Your task to perform on an android device: Show me popular games on the Play Store Image 0: 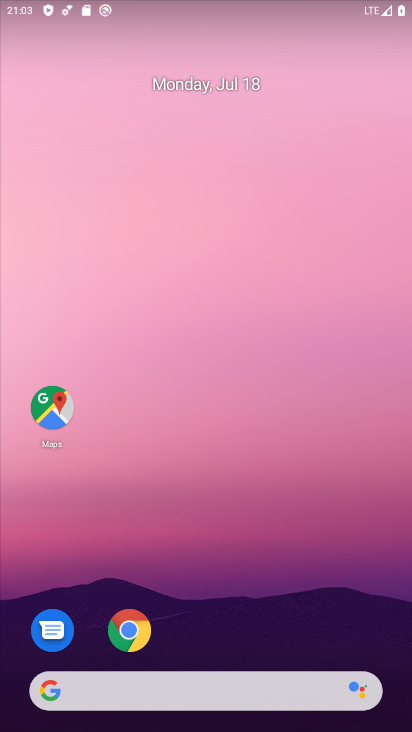
Step 0: drag from (274, 614) to (34, 435)
Your task to perform on an android device: Show me popular games on the Play Store Image 1: 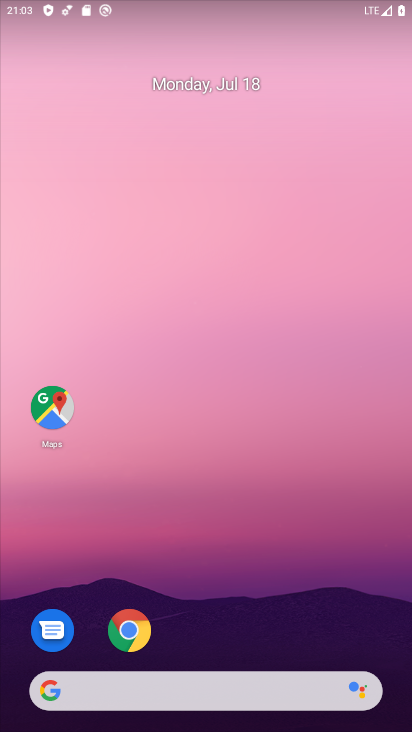
Step 1: drag from (267, 671) to (2, 357)
Your task to perform on an android device: Show me popular games on the Play Store Image 2: 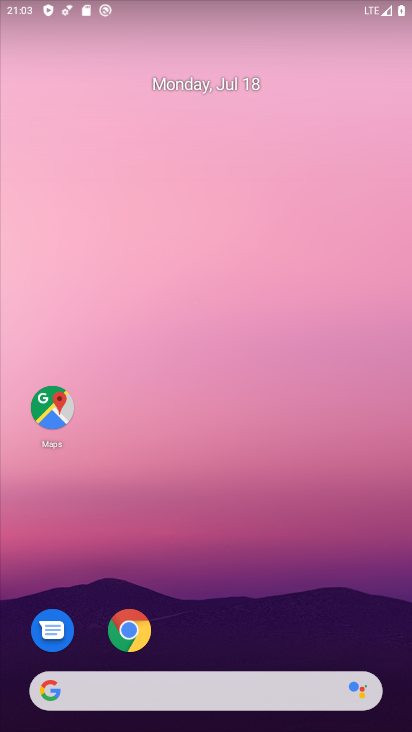
Step 2: drag from (235, 660) to (271, 217)
Your task to perform on an android device: Show me popular games on the Play Store Image 3: 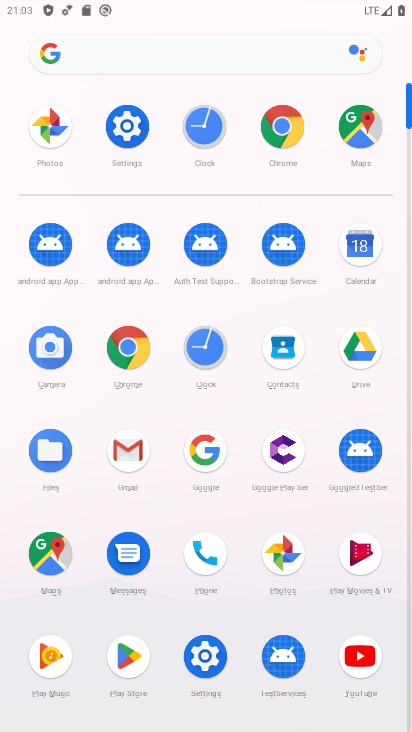
Step 3: click (122, 644)
Your task to perform on an android device: Show me popular games on the Play Store Image 4: 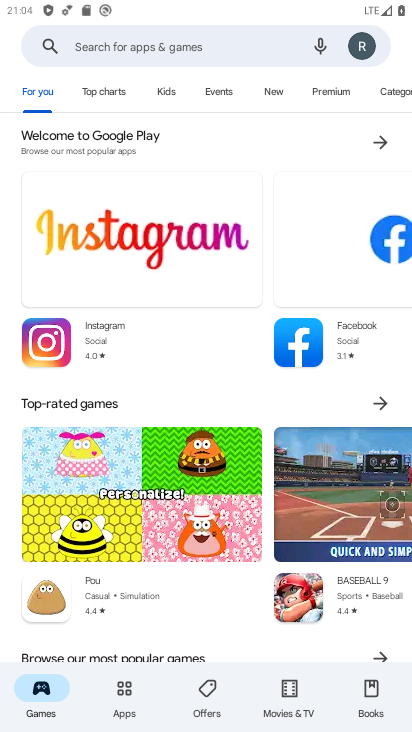
Step 4: click (121, 695)
Your task to perform on an android device: Show me popular games on the Play Store Image 5: 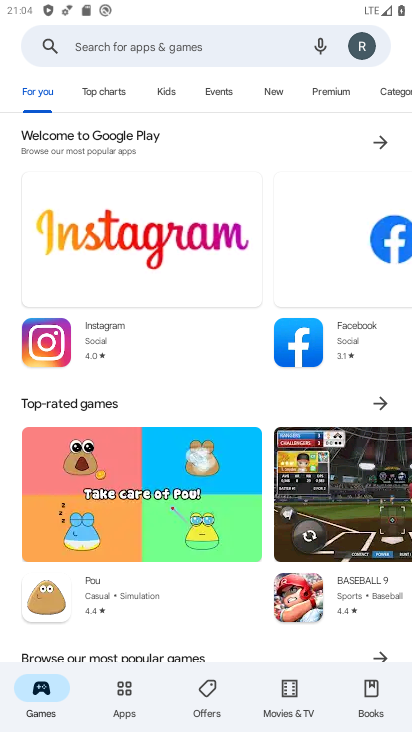
Step 5: click (120, 695)
Your task to perform on an android device: Show me popular games on the Play Store Image 6: 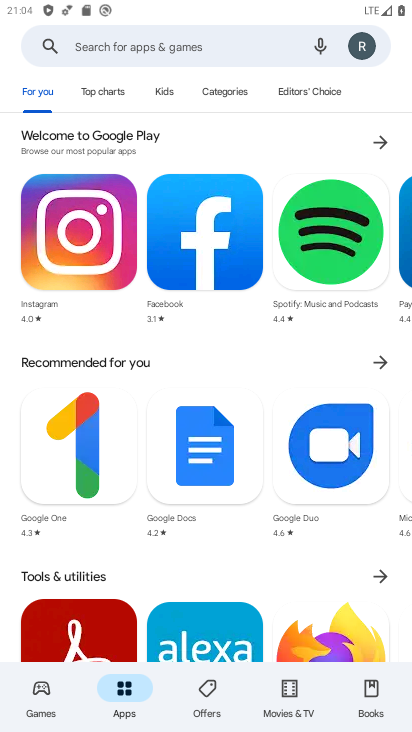
Step 6: task complete